Your task to perform on an android device: clear history in the chrome app Image 0: 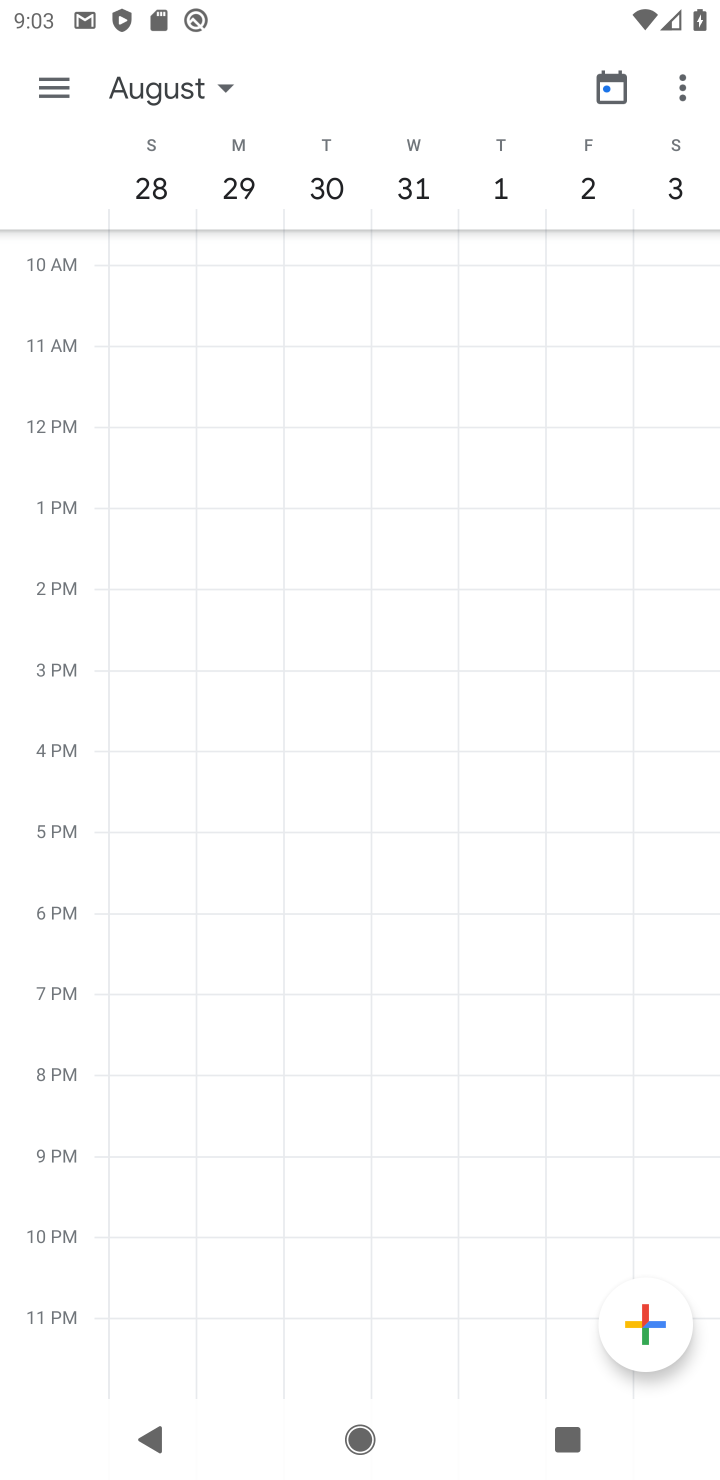
Step 0: press home button
Your task to perform on an android device: clear history in the chrome app Image 1: 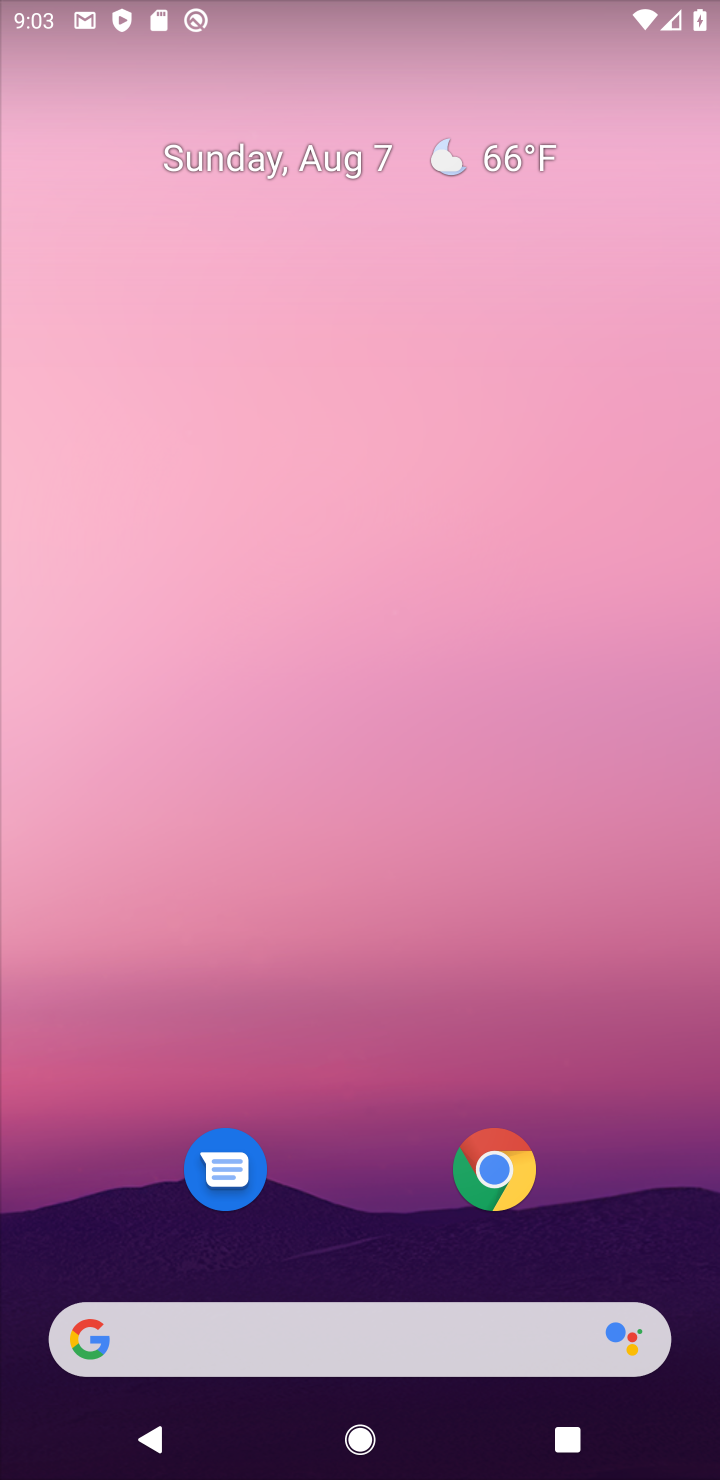
Step 1: drag from (449, 1254) to (439, 304)
Your task to perform on an android device: clear history in the chrome app Image 2: 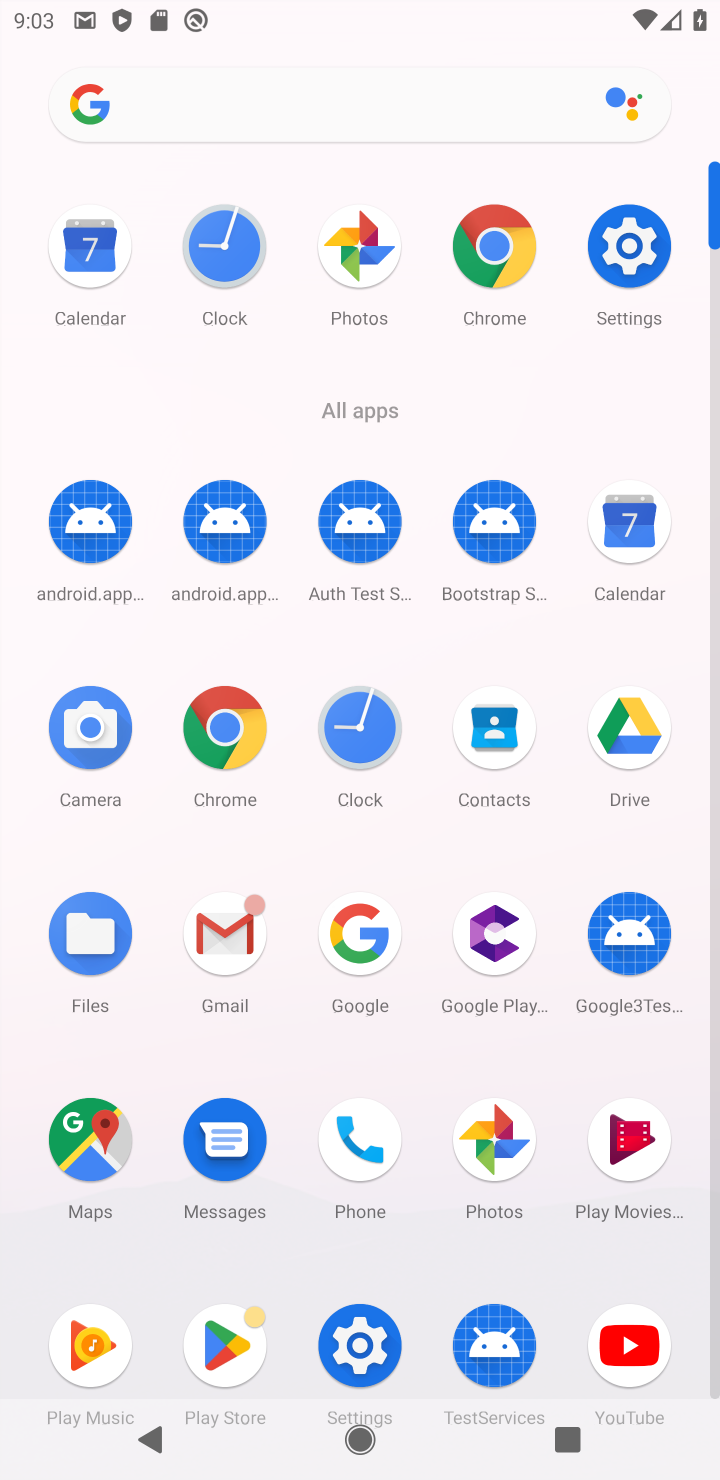
Step 2: click (233, 712)
Your task to perform on an android device: clear history in the chrome app Image 3: 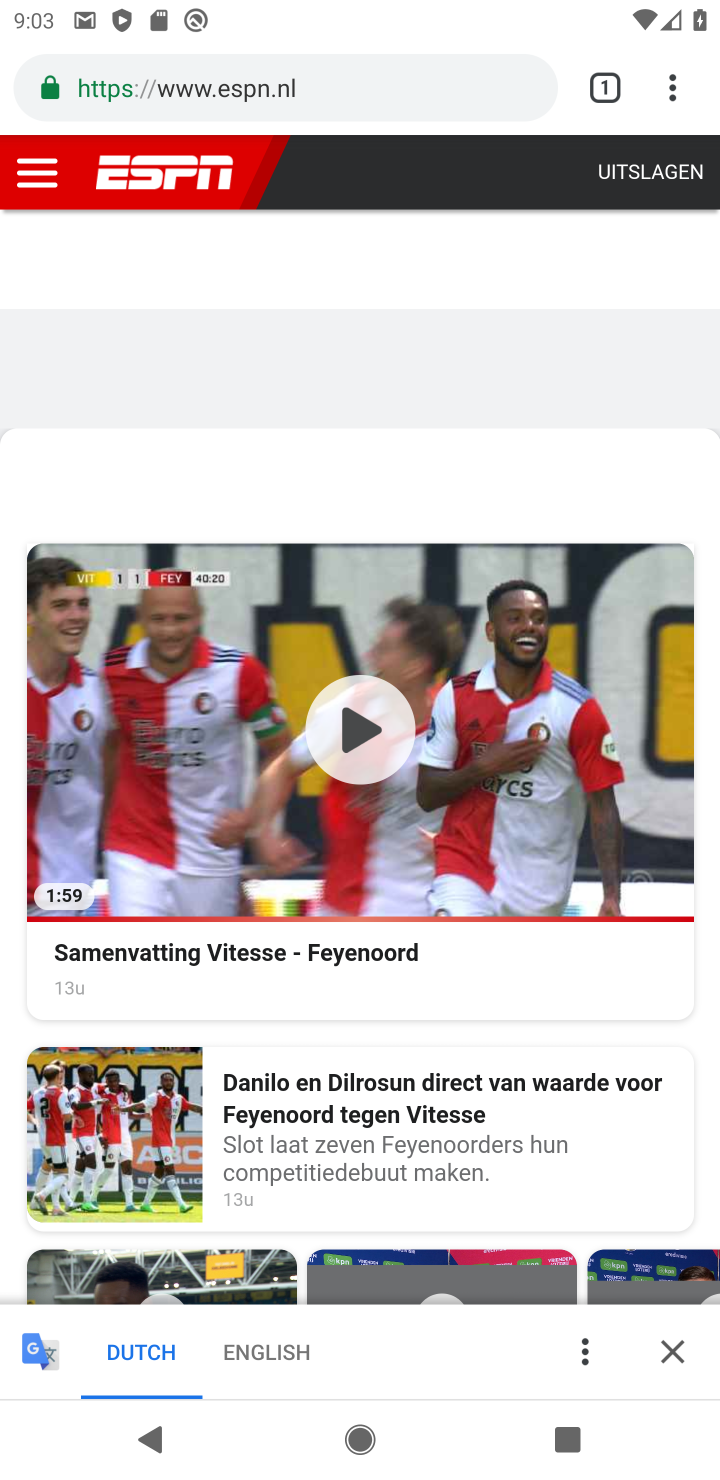
Step 3: drag from (677, 86) to (406, 504)
Your task to perform on an android device: clear history in the chrome app Image 4: 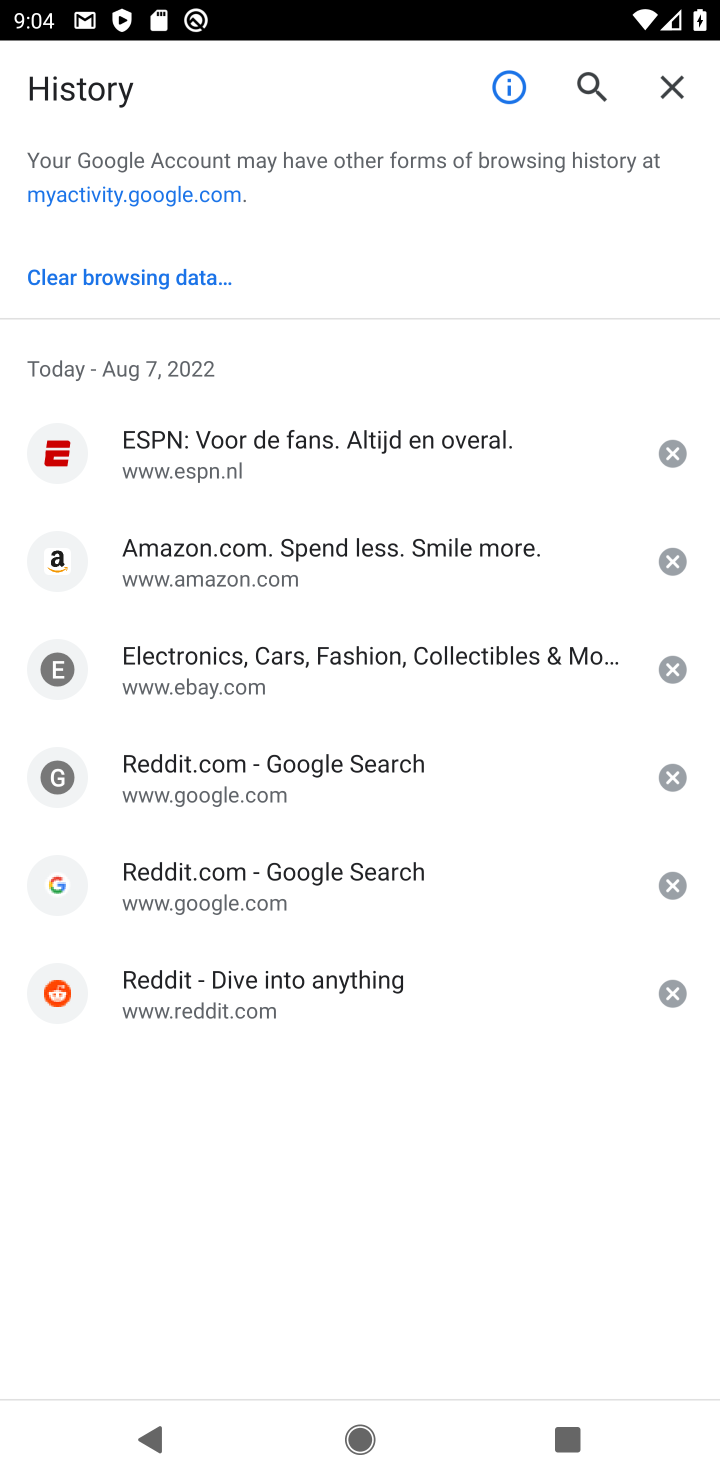
Step 4: click (121, 278)
Your task to perform on an android device: clear history in the chrome app Image 5: 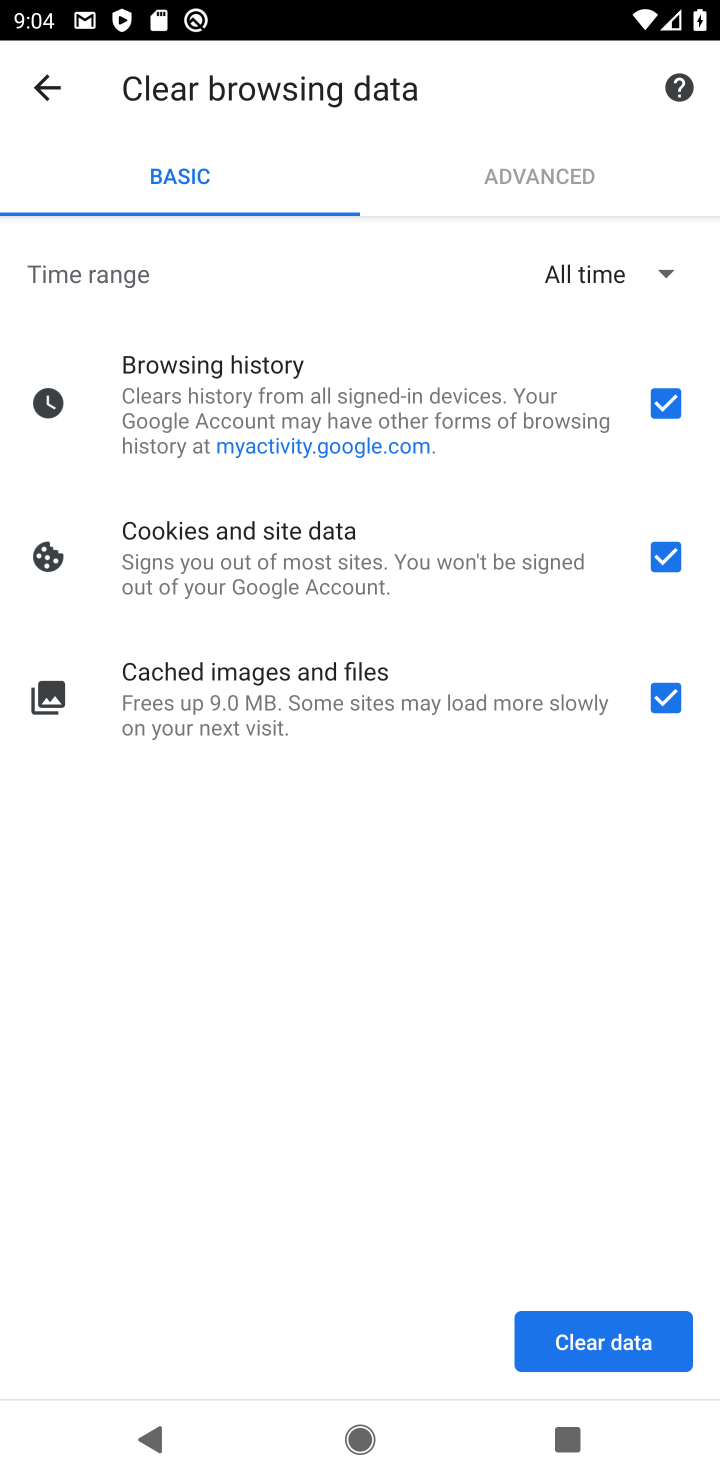
Step 5: click (631, 1337)
Your task to perform on an android device: clear history in the chrome app Image 6: 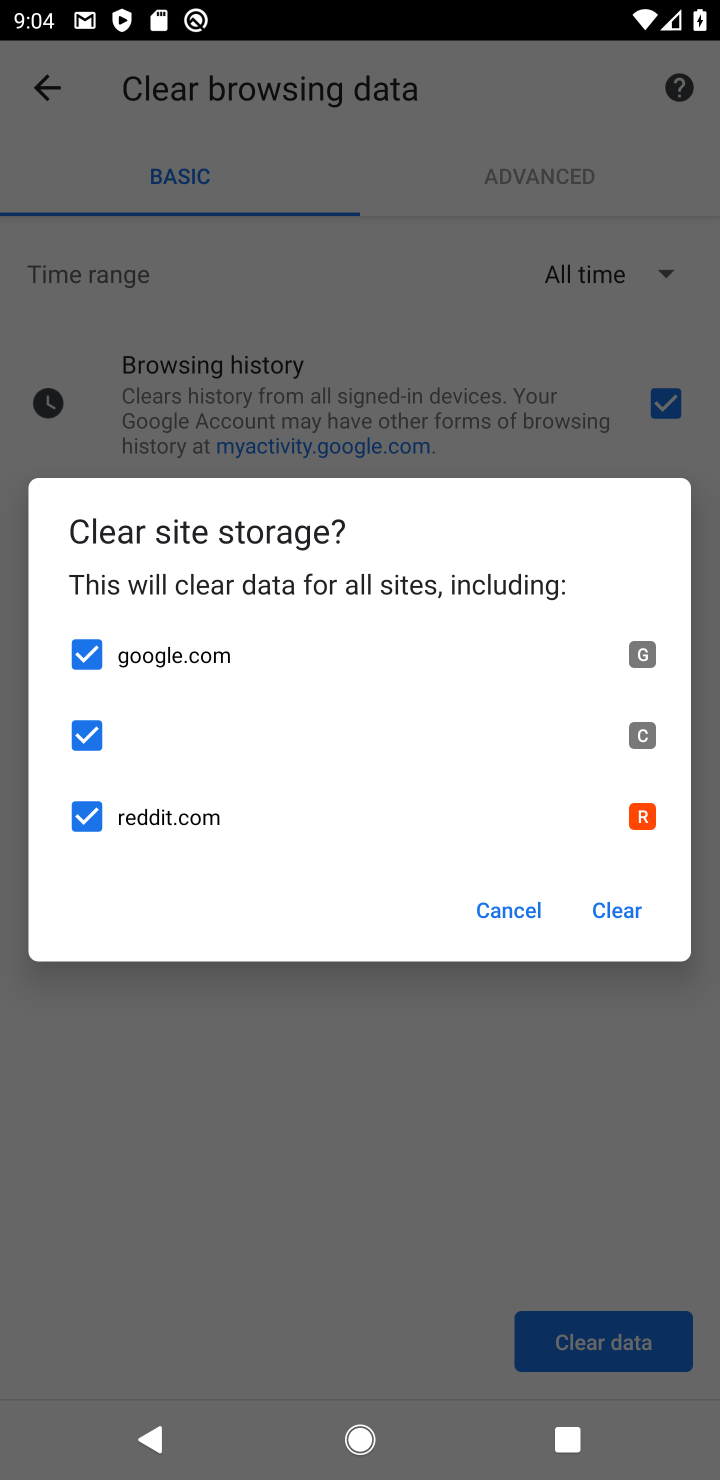
Step 6: click (623, 902)
Your task to perform on an android device: clear history in the chrome app Image 7: 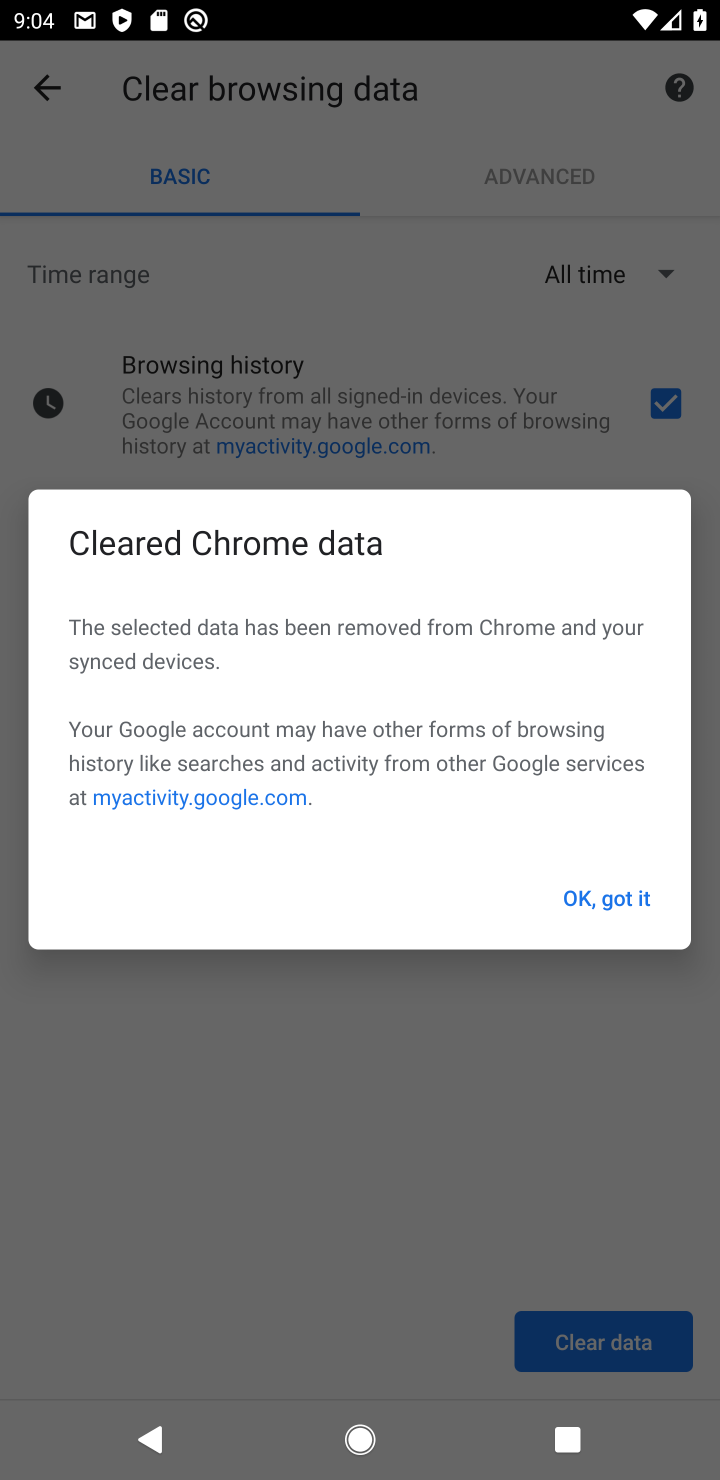
Step 7: click (638, 893)
Your task to perform on an android device: clear history in the chrome app Image 8: 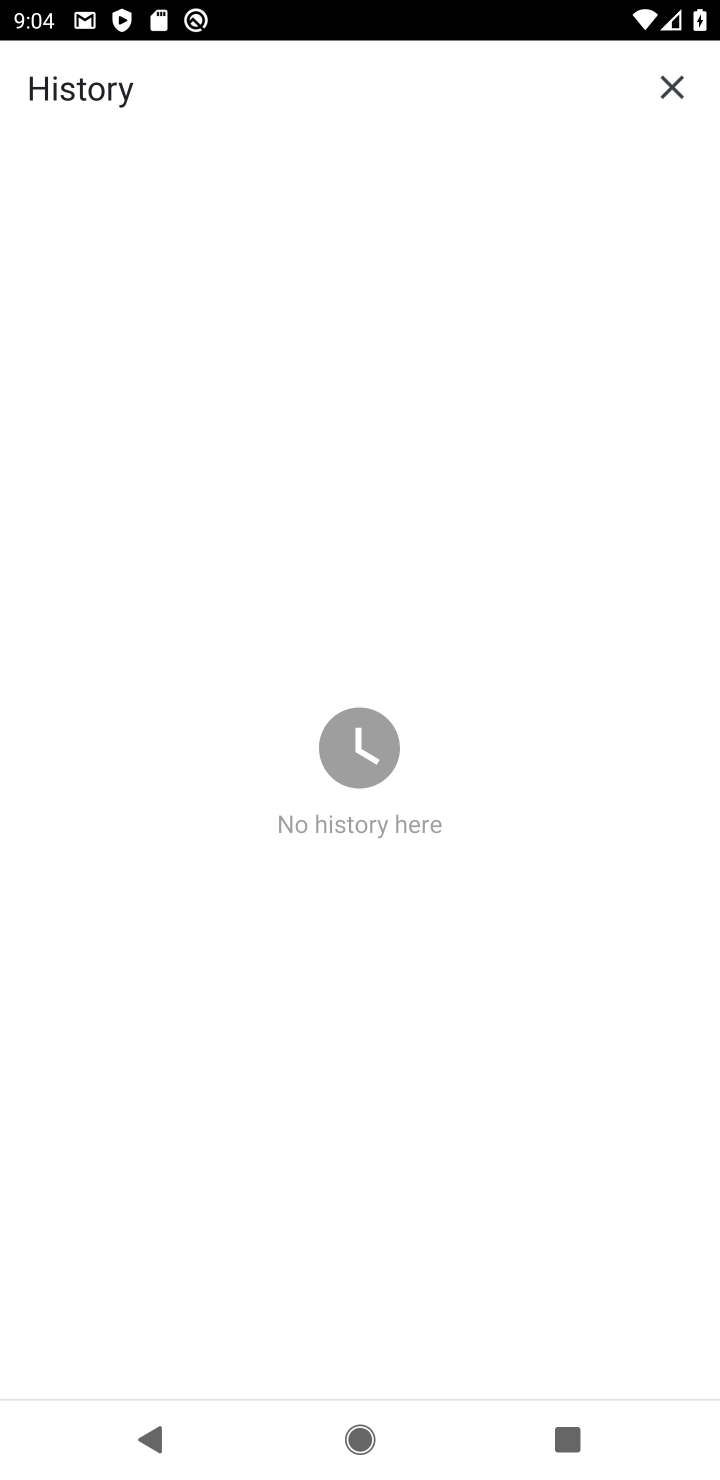
Step 8: task complete